Your task to perform on an android device: stop showing notifications on the lock screen Image 0: 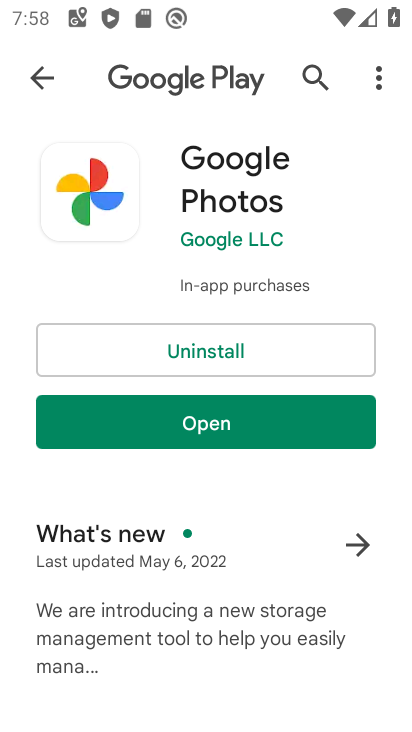
Step 0: press home button
Your task to perform on an android device: stop showing notifications on the lock screen Image 1: 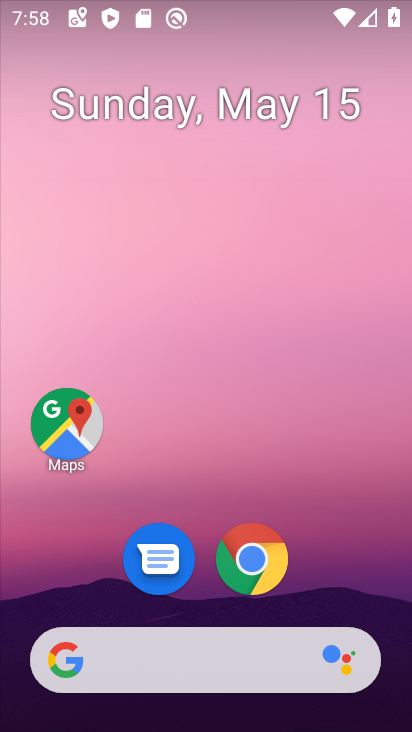
Step 1: drag from (372, 547) to (296, 161)
Your task to perform on an android device: stop showing notifications on the lock screen Image 2: 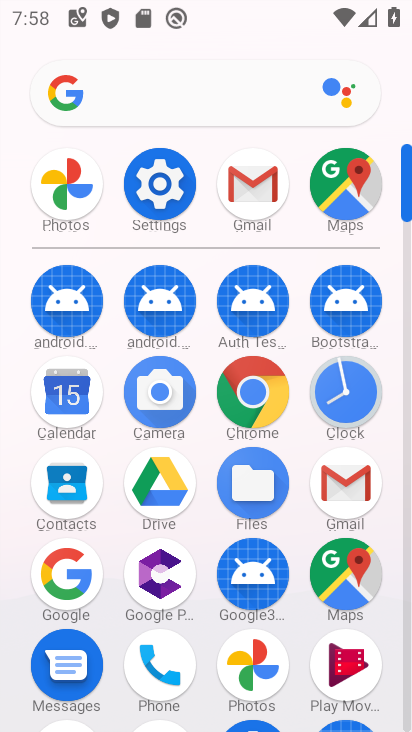
Step 2: click (173, 202)
Your task to perform on an android device: stop showing notifications on the lock screen Image 3: 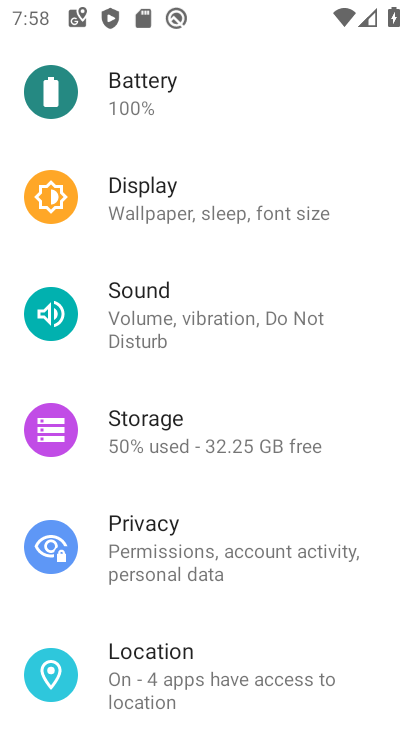
Step 3: drag from (187, 477) to (194, 286)
Your task to perform on an android device: stop showing notifications on the lock screen Image 4: 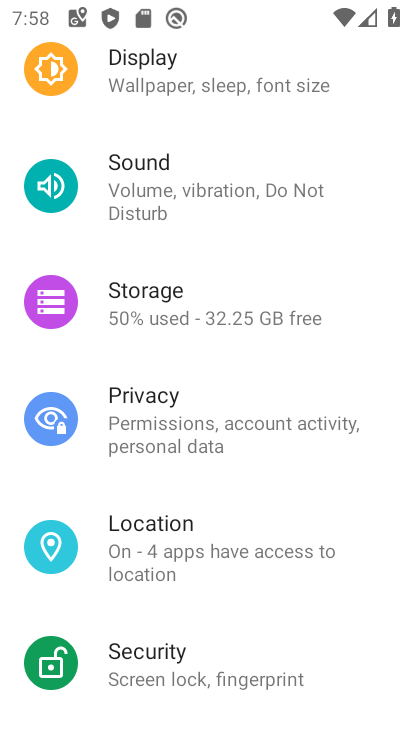
Step 4: drag from (194, 286) to (178, 496)
Your task to perform on an android device: stop showing notifications on the lock screen Image 5: 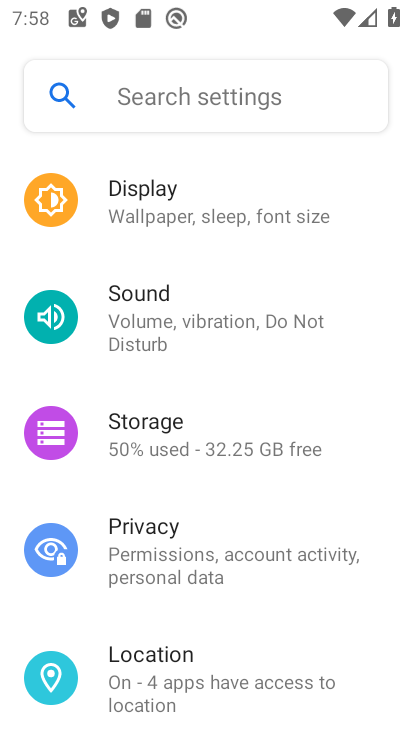
Step 5: drag from (223, 292) to (239, 531)
Your task to perform on an android device: stop showing notifications on the lock screen Image 6: 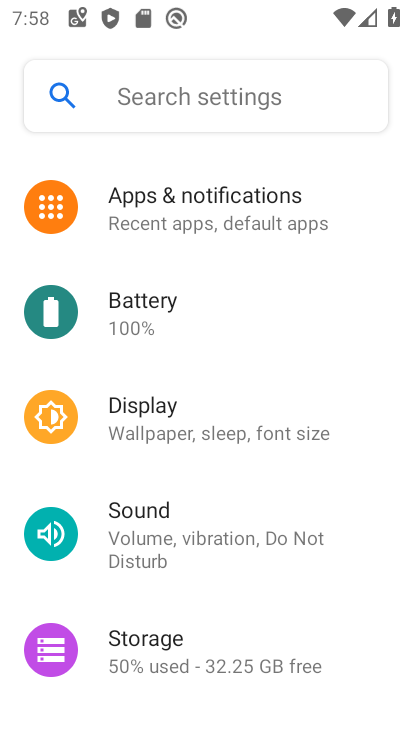
Step 6: click (248, 234)
Your task to perform on an android device: stop showing notifications on the lock screen Image 7: 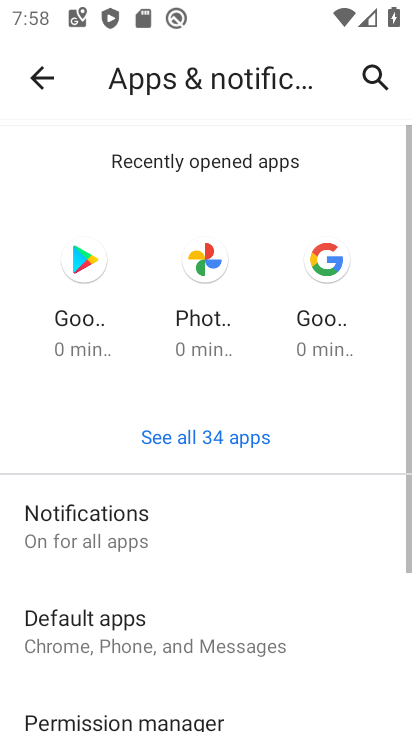
Step 7: drag from (200, 574) to (226, 329)
Your task to perform on an android device: stop showing notifications on the lock screen Image 8: 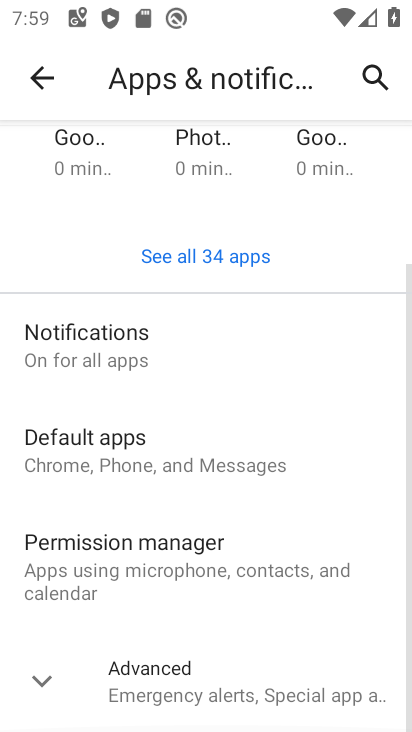
Step 8: click (195, 376)
Your task to perform on an android device: stop showing notifications on the lock screen Image 9: 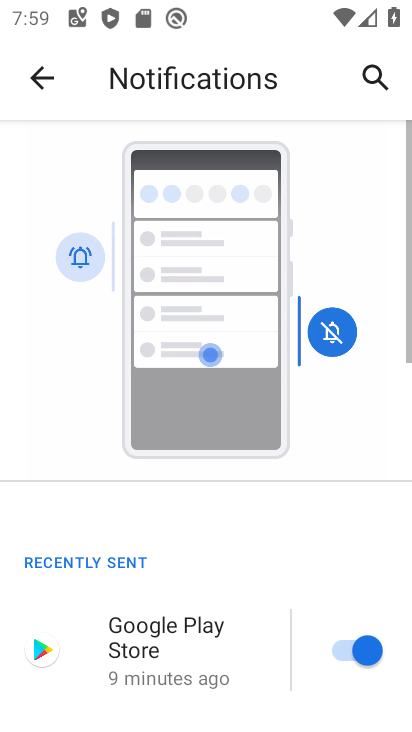
Step 9: drag from (199, 606) to (234, 353)
Your task to perform on an android device: stop showing notifications on the lock screen Image 10: 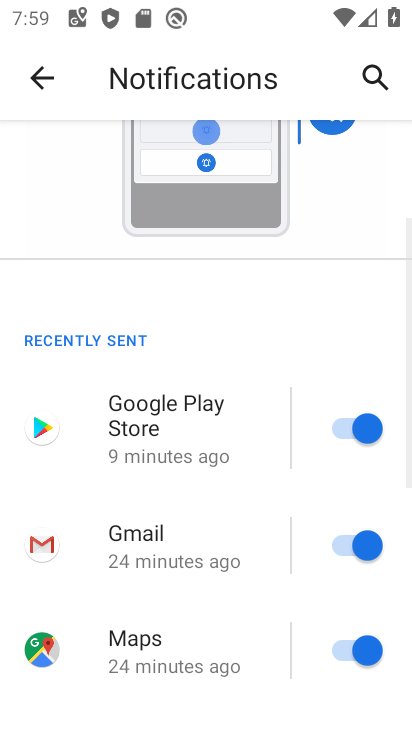
Step 10: drag from (218, 683) to (269, 171)
Your task to perform on an android device: stop showing notifications on the lock screen Image 11: 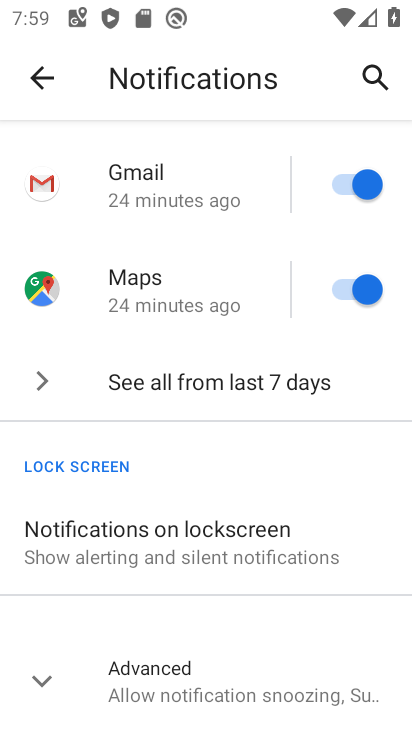
Step 11: click (236, 455)
Your task to perform on an android device: stop showing notifications on the lock screen Image 12: 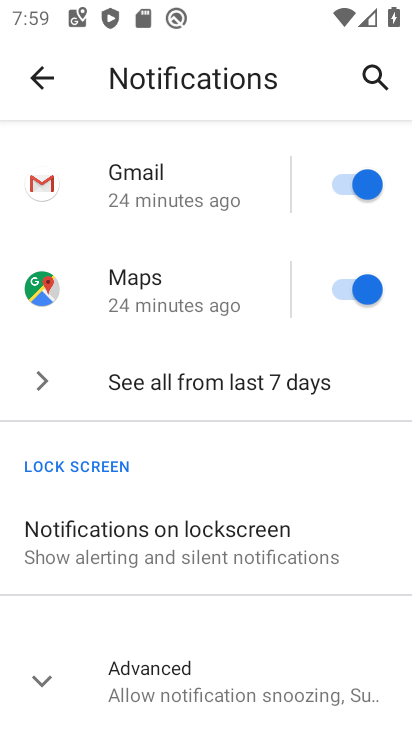
Step 12: click (216, 522)
Your task to perform on an android device: stop showing notifications on the lock screen Image 13: 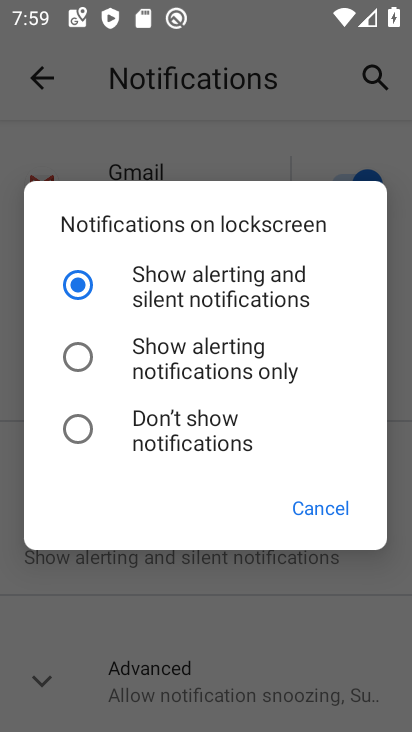
Step 13: click (209, 411)
Your task to perform on an android device: stop showing notifications on the lock screen Image 14: 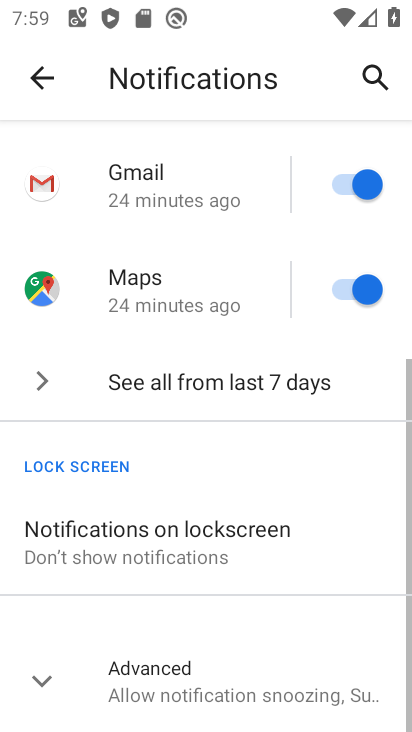
Step 14: task complete